Your task to perform on an android device: check android version Image 0: 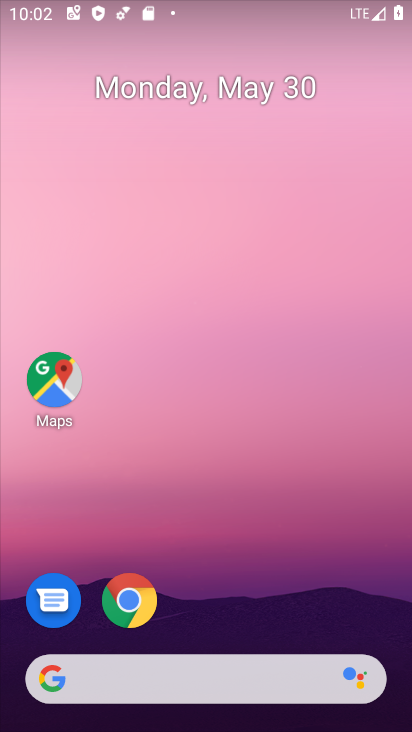
Step 0: drag from (294, 598) to (272, 451)
Your task to perform on an android device: check android version Image 1: 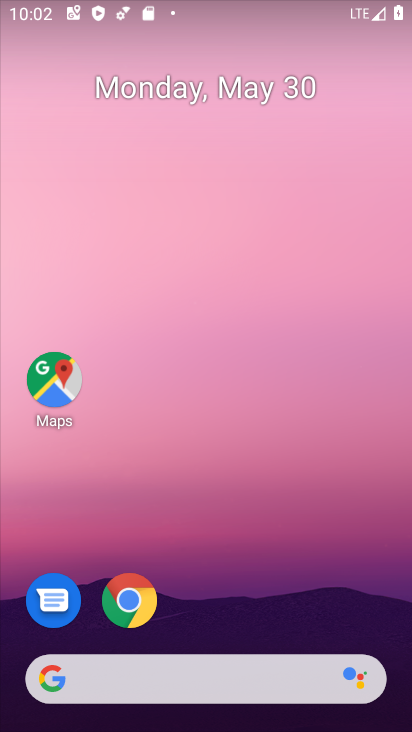
Step 1: drag from (283, 584) to (234, 3)
Your task to perform on an android device: check android version Image 2: 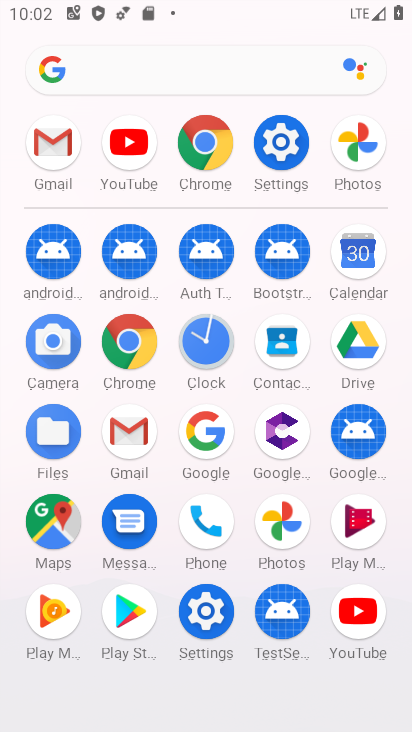
Step 2: click (271, 174)
Your task to perform on an android device: check android version Image 3: 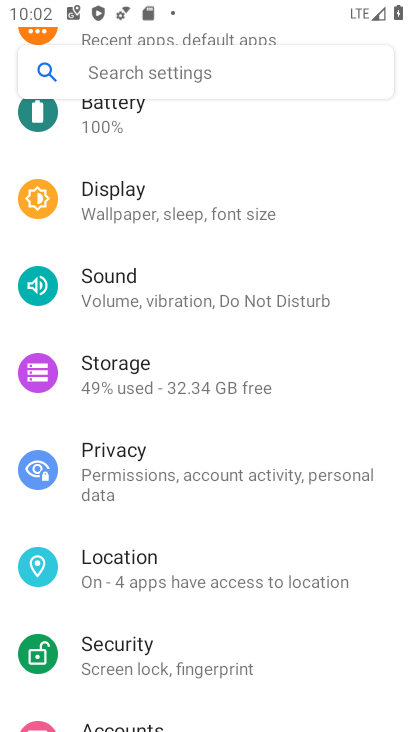
Step 3: drag from (297, 697) to (299, 15)
Your task to perform on an android device: check android version Image 4: 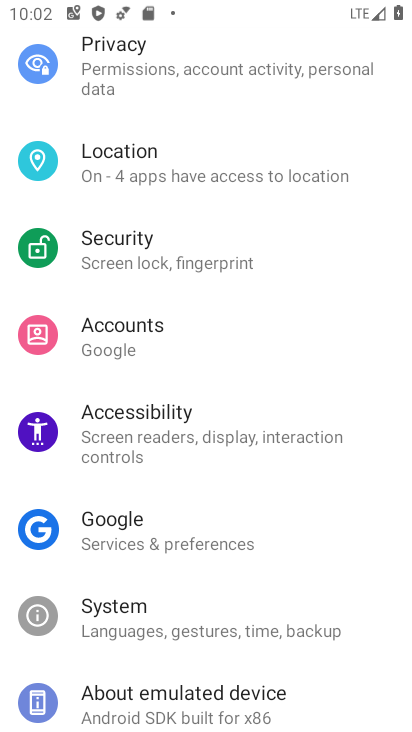
Step 4: click (212, 687)
Your task to perform on an android device: check android version Image 5: 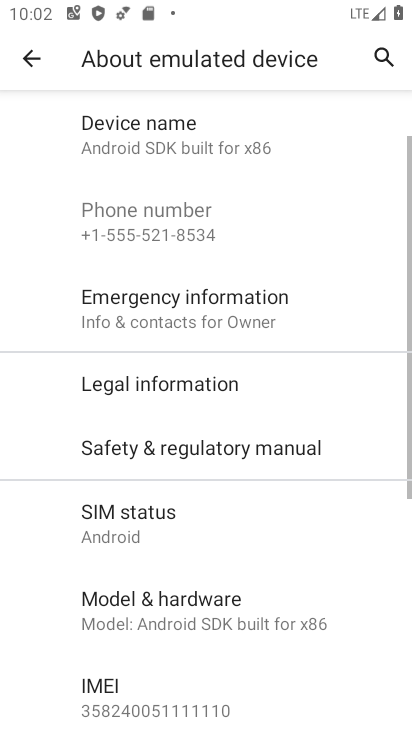
Step 5: task complete